Your task to perform on an android device: turn notification dots off Image 0: 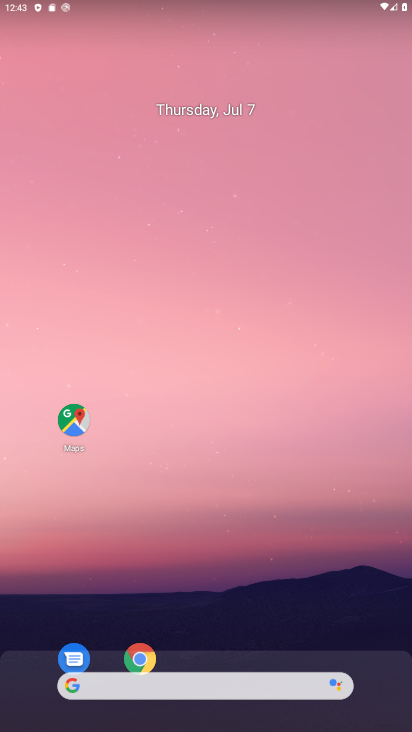
Step 0: drag from (278, 200) to (283, 113)
Your task to perform on an android device: turn notification dots off Image 1: 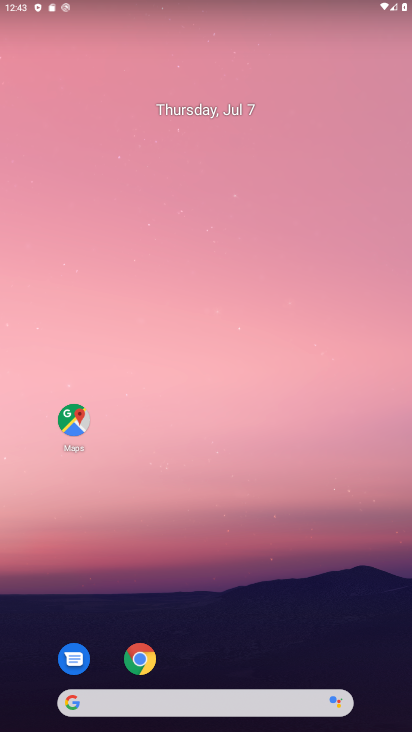
Step 1: drag from (225, 669) to (347, 123)
Your task to perform on an android device: turn notification dots off Image 2: 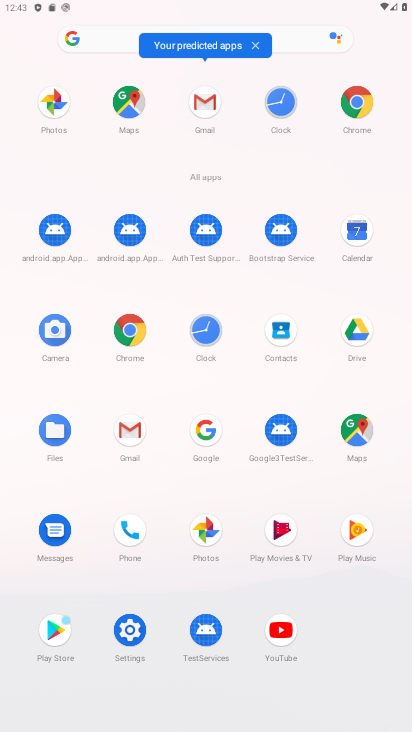
Step 2: click (120, 642)
Your task to perform on an android device: turn notification dots off Image 3: 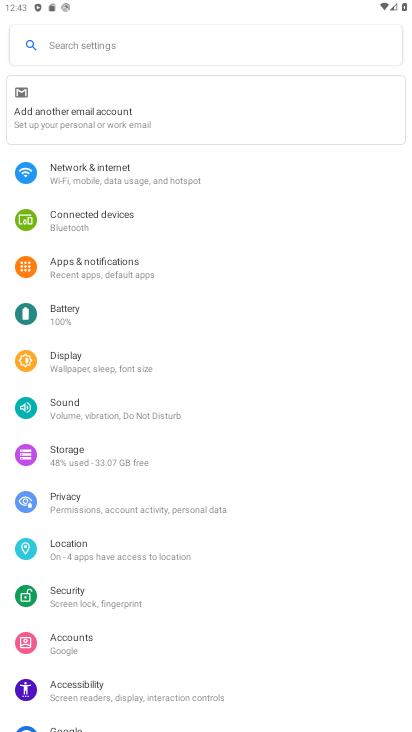
Step 3: click (155, 273)
Your task to perform on an android device: turn notification dots off Image 4: 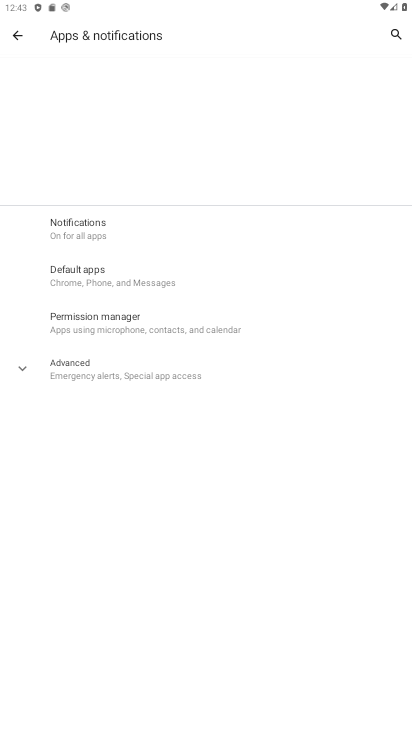
Step 4: click (135, 239)
Your task to perform on an android device: turn notification dots off Image 5: 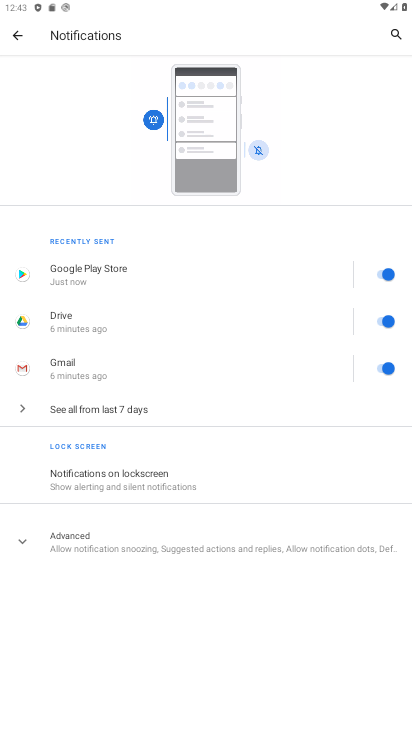
Step 5: click (106, 537)
Your task to perform on an android device: turn notification dots off Image 6: 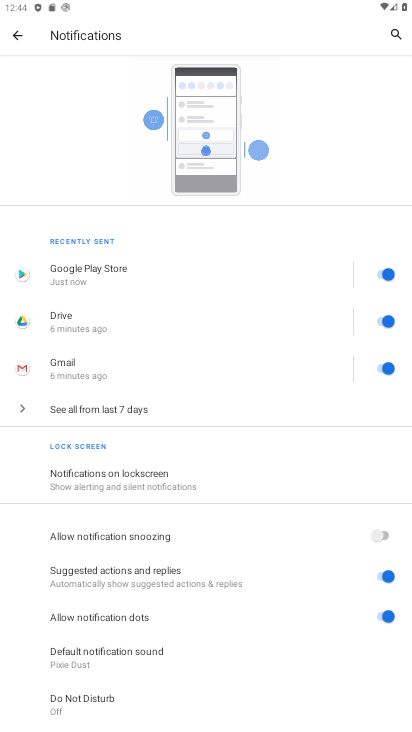
Step 6: click (382, 615)
Your task to perform on an android device: turn notification dots off Image 7: 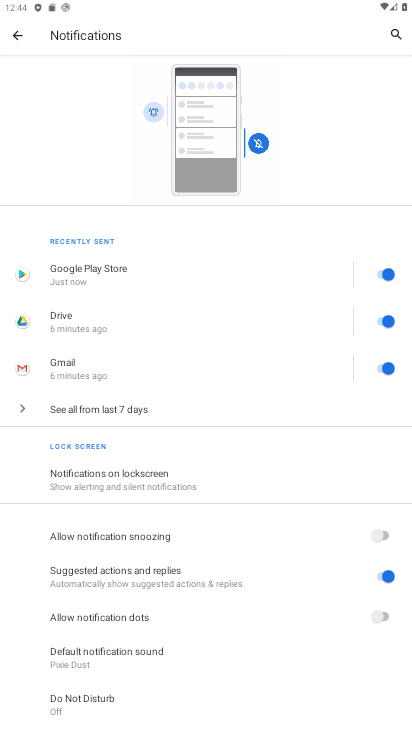
Step 7: task complete